Your task to perform on an android device: Open Youtube and go to the subscriptions tab Image 0: 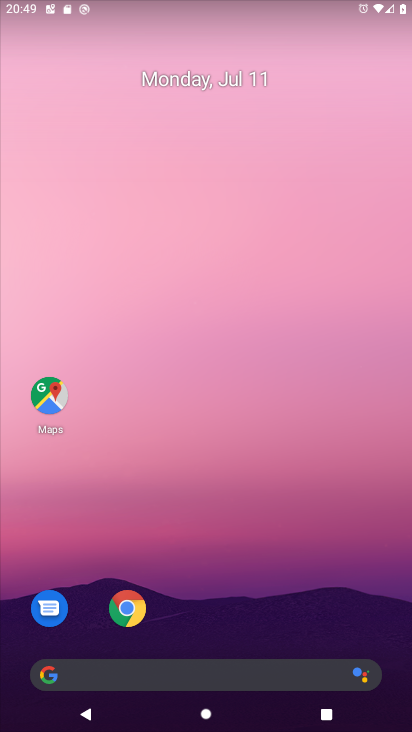
Step 0: drag from (259, 629) to (142, 17)
Your task to perform on an android device: Open Youtube and go to the subscriptions tab Image 1: 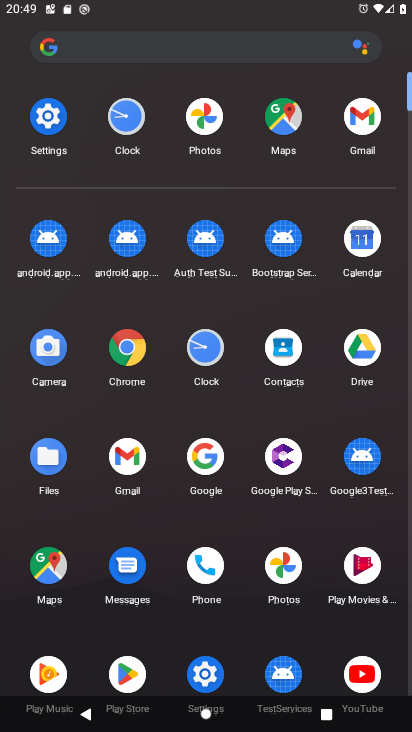
Step 1: click (358, 661)
Your task to perform on an android device: Open Youtube and go to the subscriptions tab Image 2: 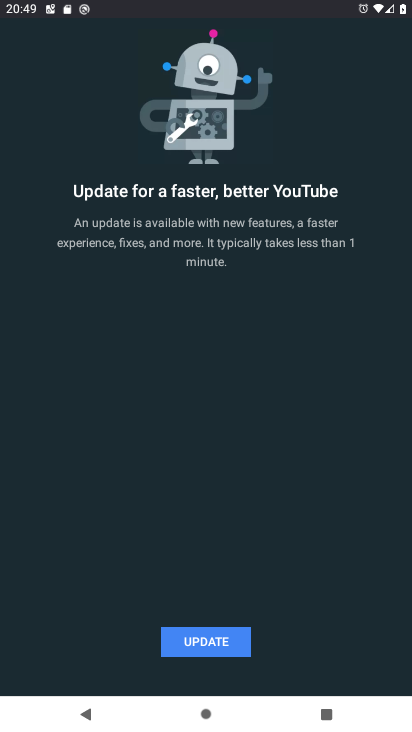
Step 2: click (159, 638)
Your task to perform on an android device: Open Youtube and go to the subscriptions tab Image 3: 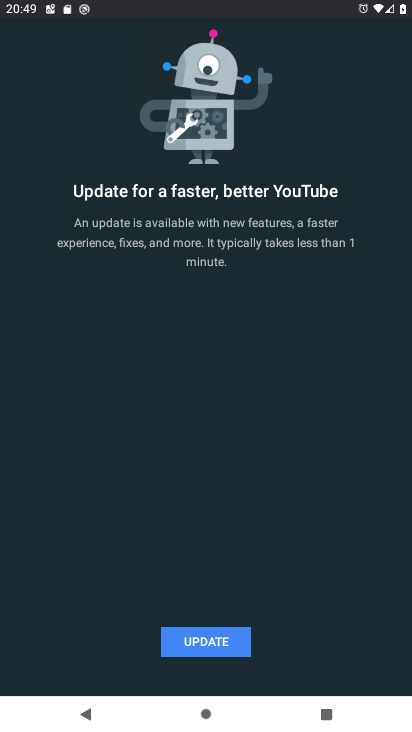
Step 3: click (176, 639)
Your task to perform on an android device: Open Youtube and go to the subscriptions tab Image 4: 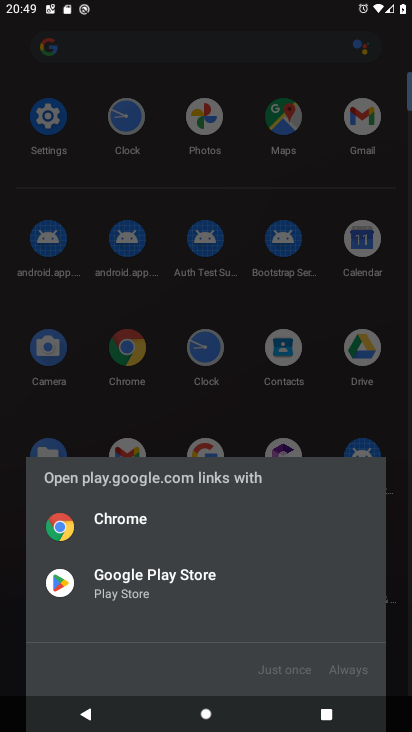
Step 4: click (149, 578)
Your task to perform on an android device: Open Youtube and go to the subscriptions tab Image 5: 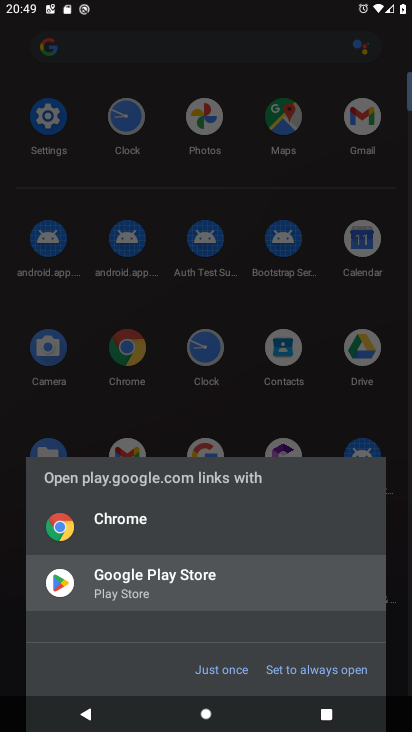
Step 5: click (225, 672)
Your task to perform on an android device: Open Youtube and go to the subscriptions tab Image 6: 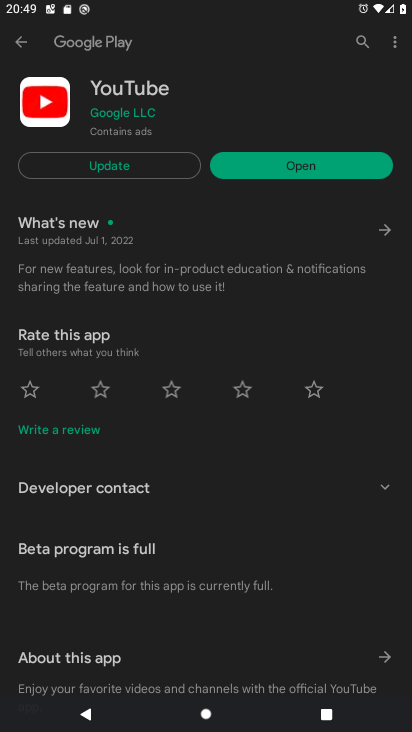
Step 6: click (68, 159)
Your task to perform on an android device: Open Youtube and go to the subscriptions tab Image 7: 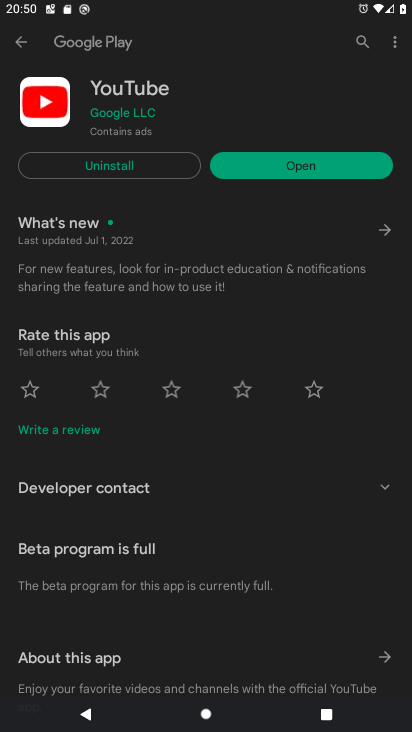
Step 7: click (255, 177)
Your task to perform on an android device: Open Youtube and go to the subscriptions tab Image 8: 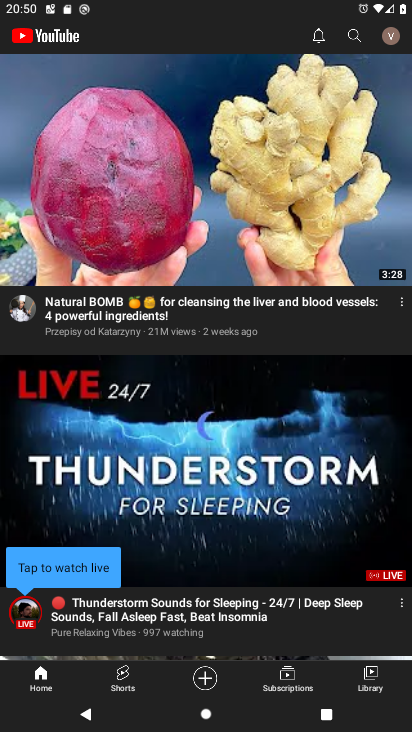
Step 8: click (273, 680)
Your task to perform on an android device: Open Youtube and go to the subscriptions tab Image 9: 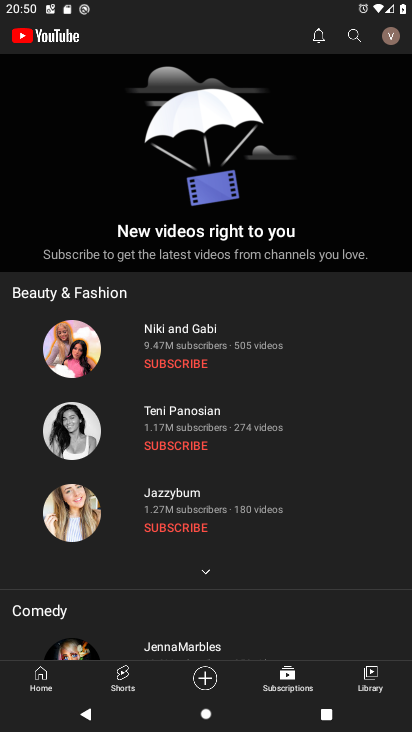
Step 9: task complete